Your task to perform on an android device: Open notification settings Image 0: 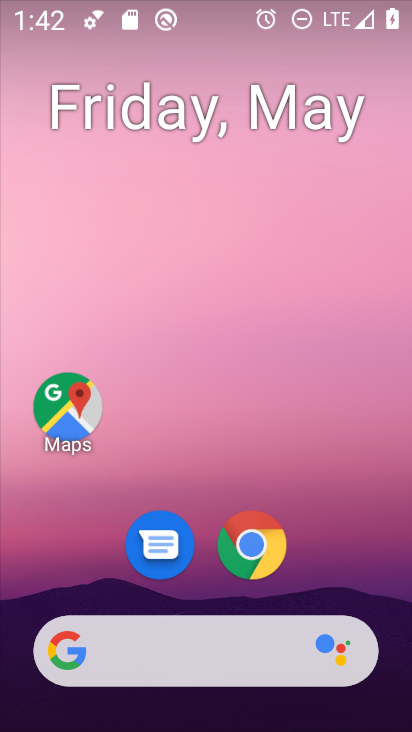
Step 0: drag from (334, 510) to (333, 186)
Your task to perform on an android device: Open notification settings Image 1: 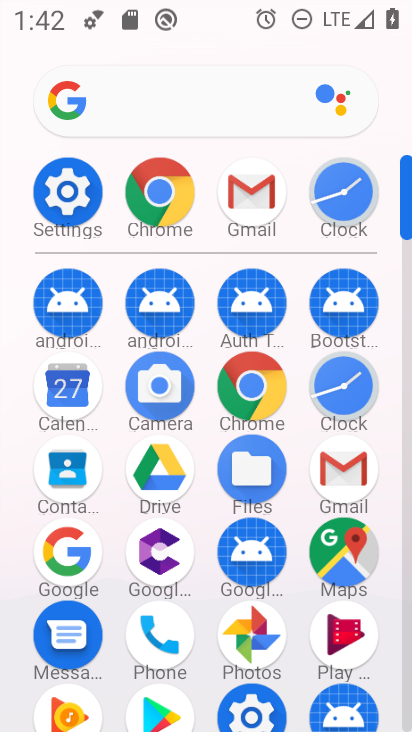
Step 1: click (56, 198)
Your task to perform on an android device: Open notification settings Image 2: 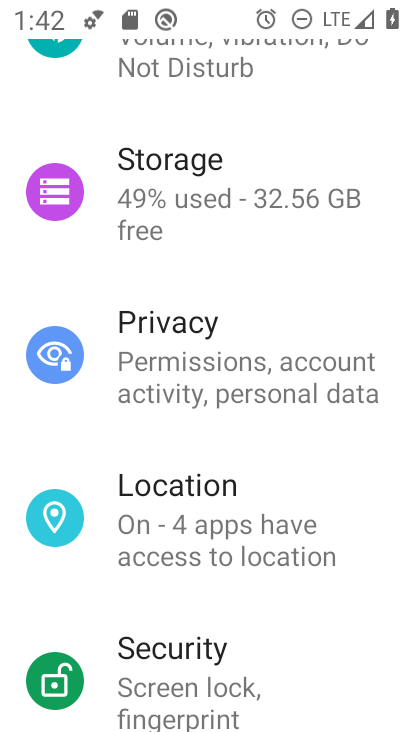
Step 2: drag from (228, 169) to (239, 621)
Your task to perform on an android device: Open notification settings Image 3: 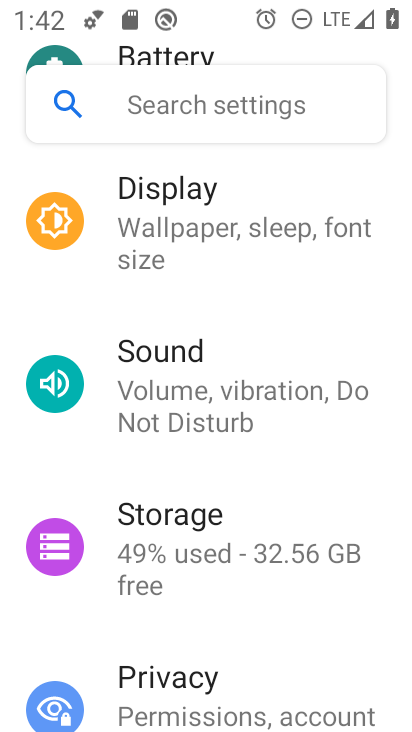
Step 3: drag from (219, 328) to (223, 712)
Your task to perform on an android device: Open notification settings Image 4: 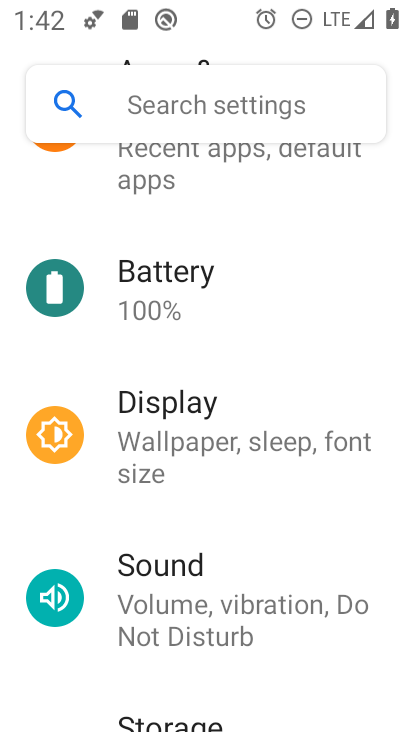
Step 4: drag from (196, 231) to (196, 545)
Your task to perform on an android device: Open notification settings Image 5: 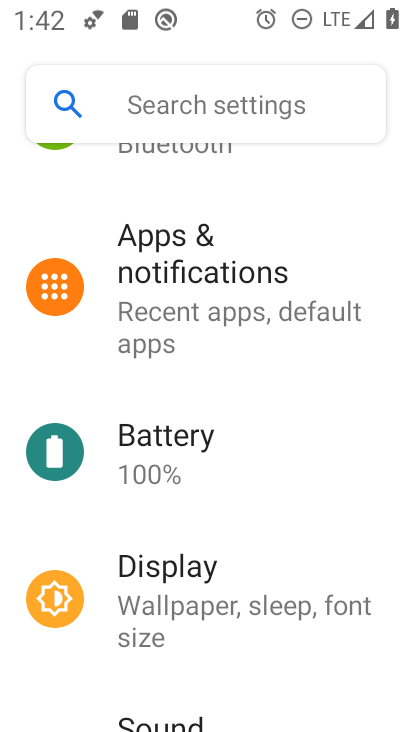
Step 5: click (226, 253)
Your task to perform on an android device: Open notification settings Image 6: 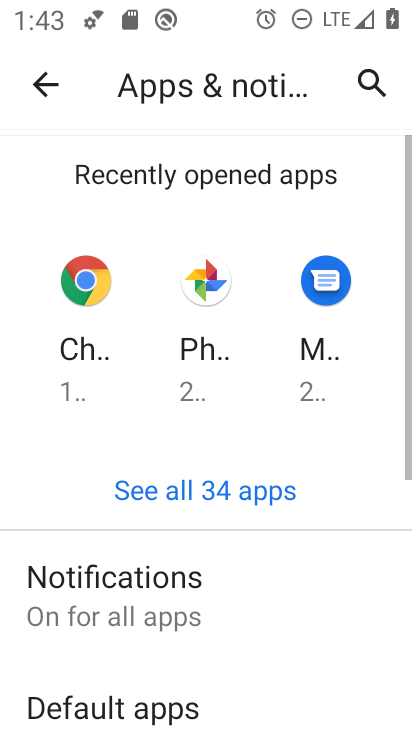
Step 6: task complete